Your task to perform on an android device: move an email to a new category in the gmail app Image 0: 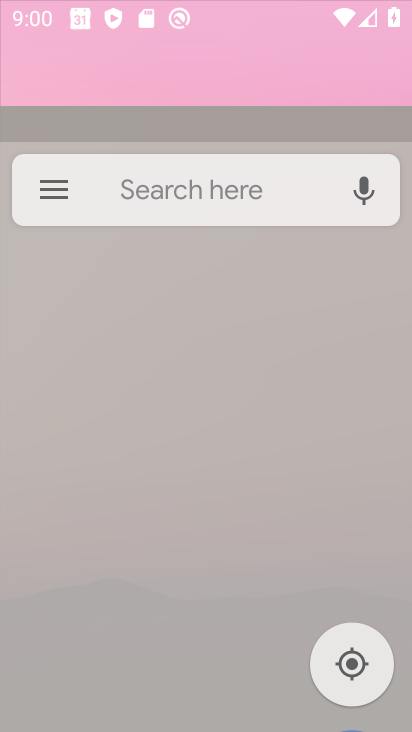
Step 0: drag from (288, 270) to (383, 6)
Your task to perform on an android device: move an email to a new category in the gmail app Image 1: 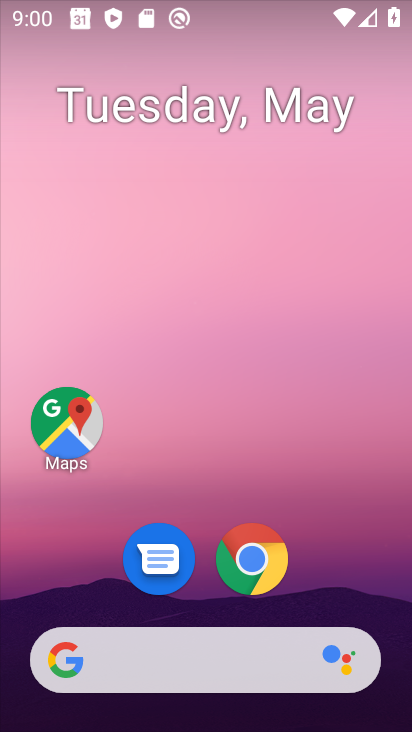
Step 1: drag from (378, 613) to (218, 30)
Your task to perform on an android device: move an email to a new category in the gmail app Image 2: 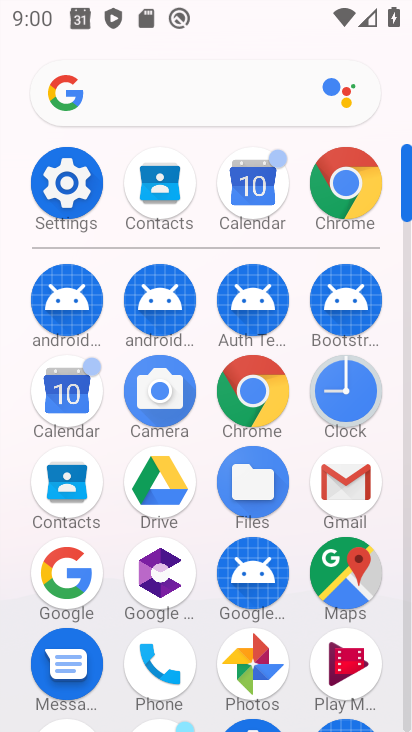
Step 2: click (335, 471)
Your task to perform on an android device: move an email to a new category in the gmail app Image 3: 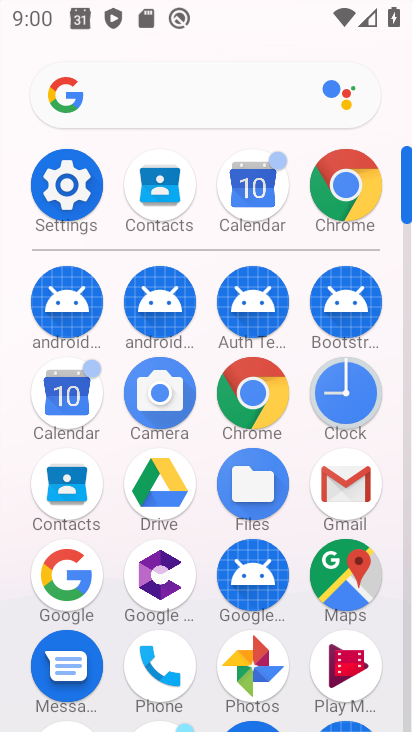
Step 3: click (343, 482)
Your task to perform on an android device: move an email to a new category in the gmail app Image 4: 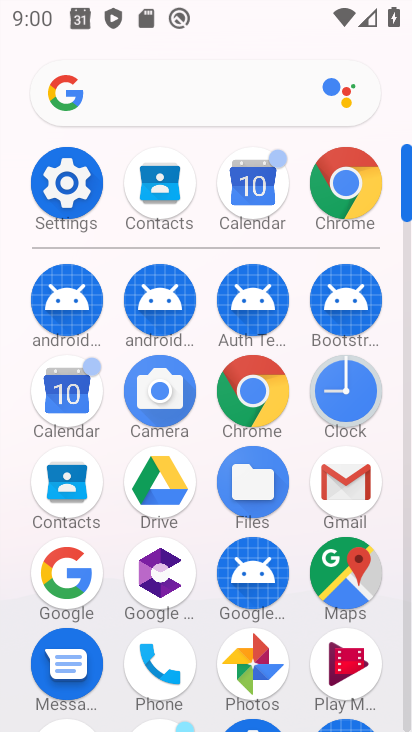
Step 4: click (345, 481)
Your task to perform on an android device: move an email to a new category in the gmail app Image 5: 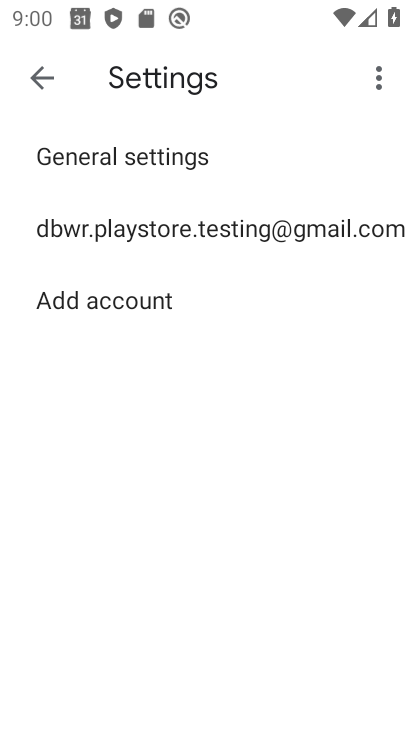
Step 5: click (343, 483)
Your task to perform on an android device: move an email to a new category in the gmail app Image 6: 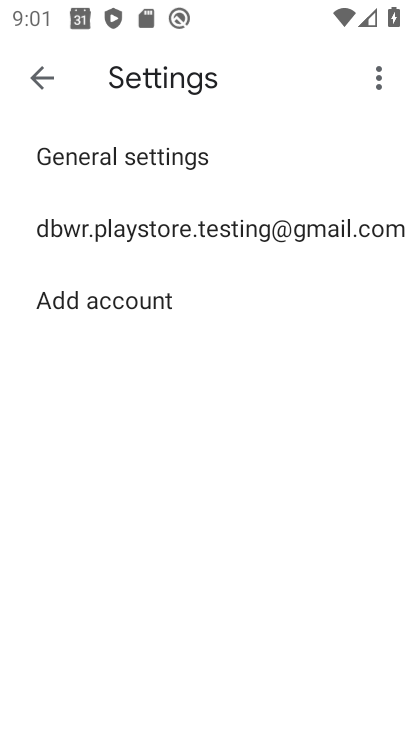
Step 6: click (125, 224)
Your task to perform on an android device: move an email to a new category in the gmail app Image 7: 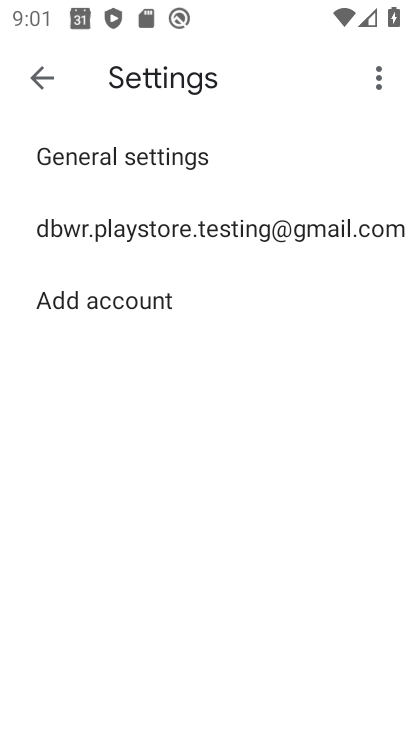
Step 7: click (127, 229)
Your task to perform on an android device: move an email to a new category in the gmail app Image 8: 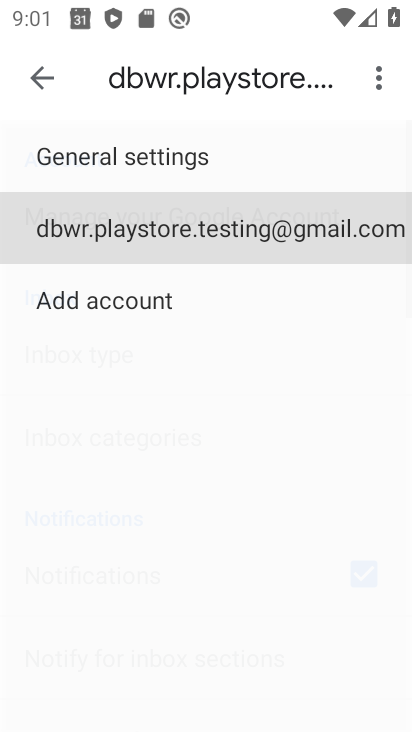
Step 8: click (127, 228)
Your task to perform on an android device: move an email to a new category in the gmail app Image 9: 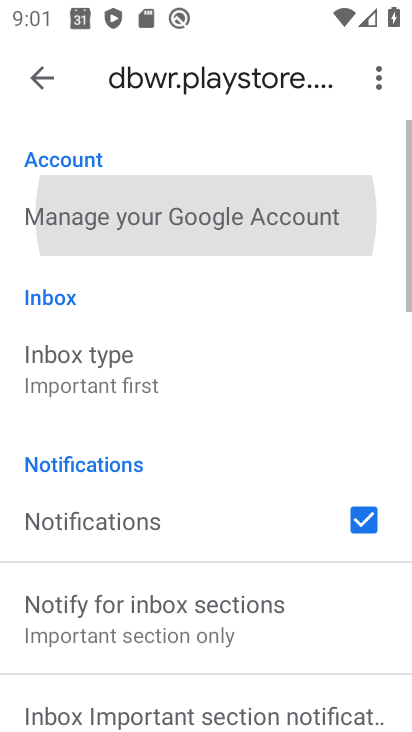
Step 9: click (127, 228)
Your task to perform on an android device: move an email to a new category in the gmail app Image 10: 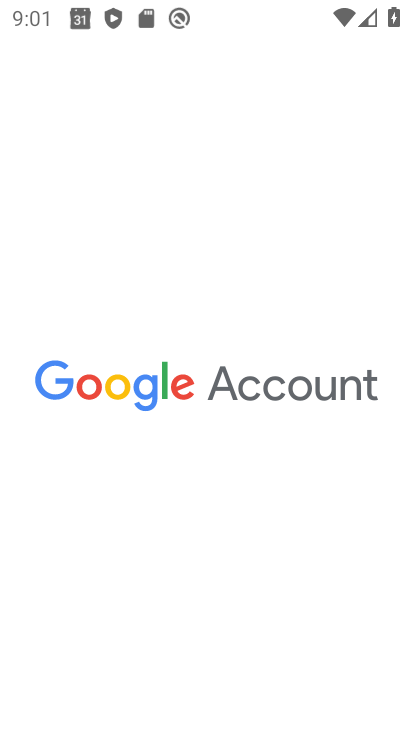
Step 10: drag from (169, 503) to (142, 289)
Your task to perform on an android device: move an email to a new category in the gmail app Image 11: 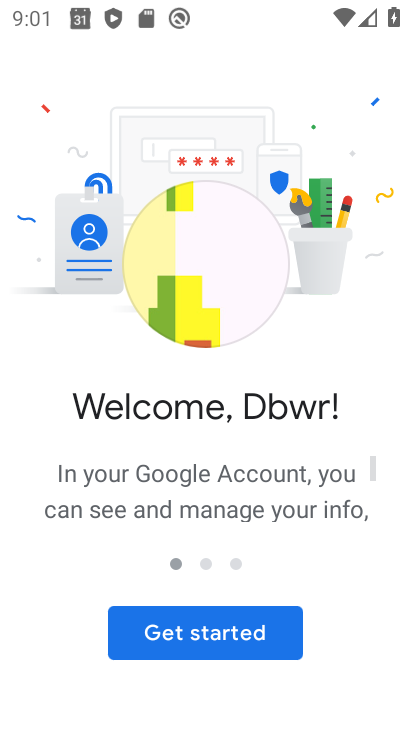
Step 11: click (232, 634)
Your task to perform on an android device: move an email to a new category in the gmail app Image 12: 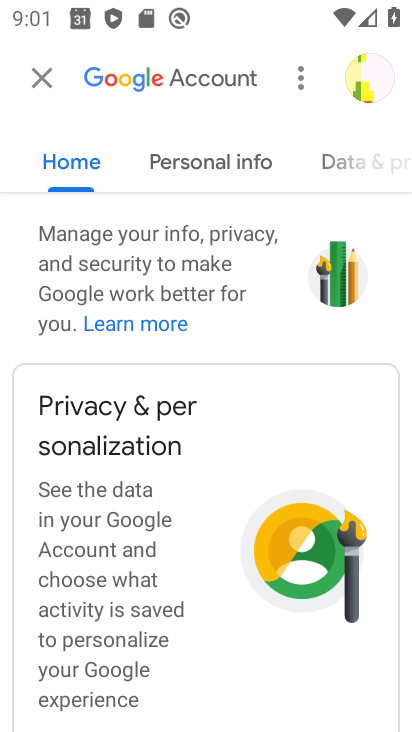
Step 12: click (42, 69)
Your task to perform on an android device: move an email to a new category in the gmail app Image 13: 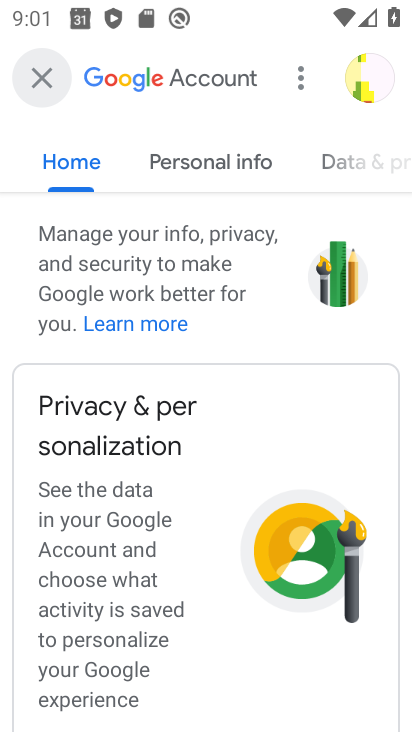
Step 13: click (42, 69)
Your task to perform on an android device: move an email to a new category in the gmail app Image 14: 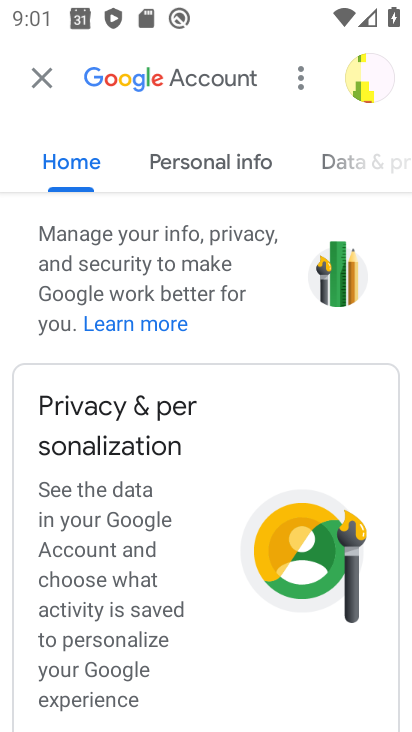
Step 14: click (42, 69)
Your task to perform on an android device: move an email to a new category in the gmail app Image 15: 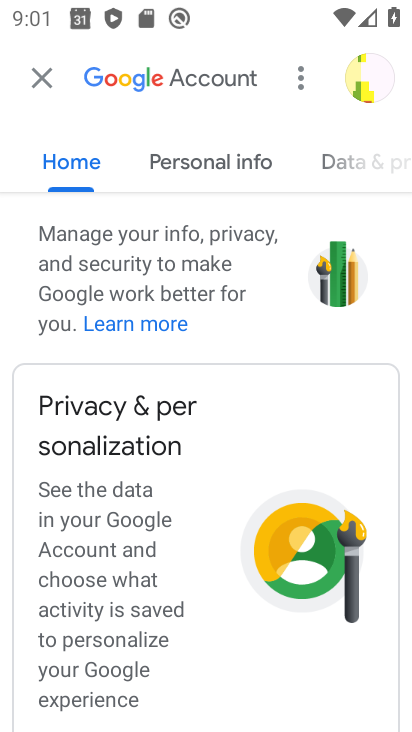
Step 15: click (41, 70)
Your task to perform on an android device: move an email to a new category in the gmail app Image 16: 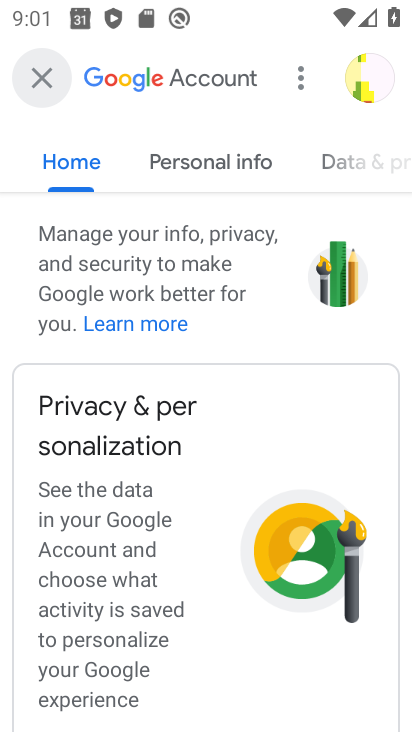
Step 16: click (43, 76)
Your task to perform on an android device: move an email to a new category in the gmail app Image 17: 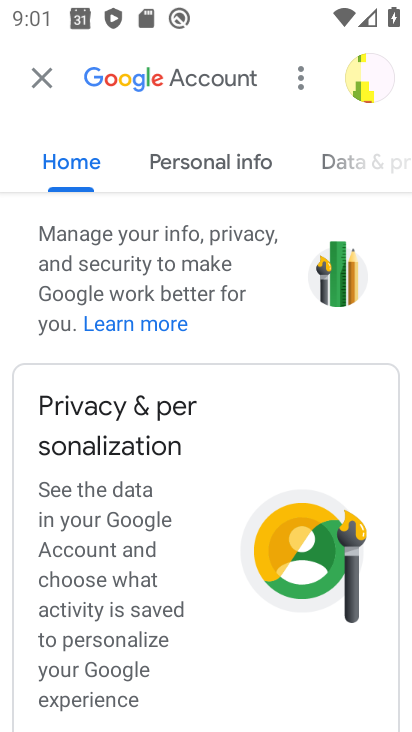
Step 17: click (44, 77)
Your task to perform on an android device: move an email to a new category in the gmail app Image 18: 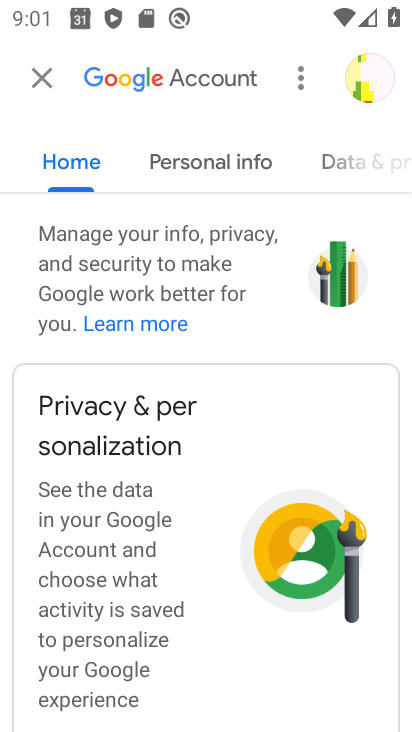
Step 18: click (44, 77)
Your task to perform on an android device: move an email to a new category in the gmail app Image 19: 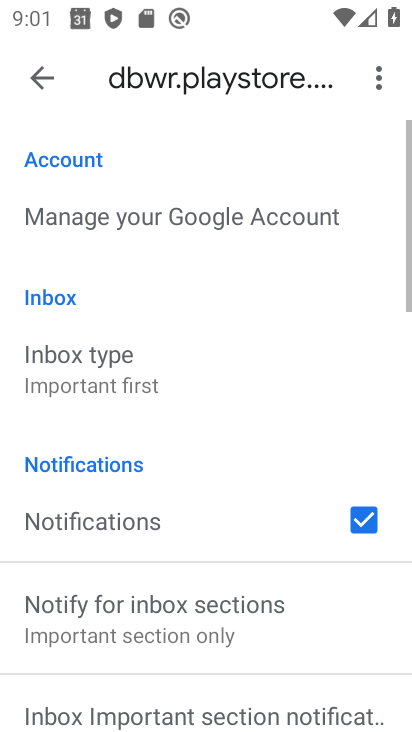
Step 19: press back button
Your task to perform on an android device: move an email to a new category in the gmail app Image 20: 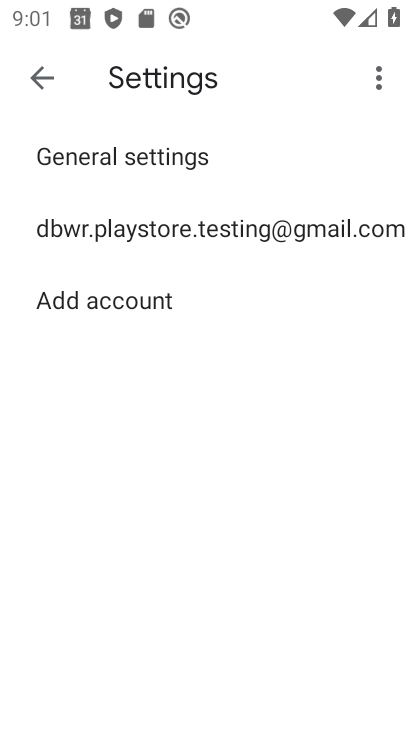
Step 20: press home button
Your task to perform on an android device: move an email to a new category in the gmail app Image 21: 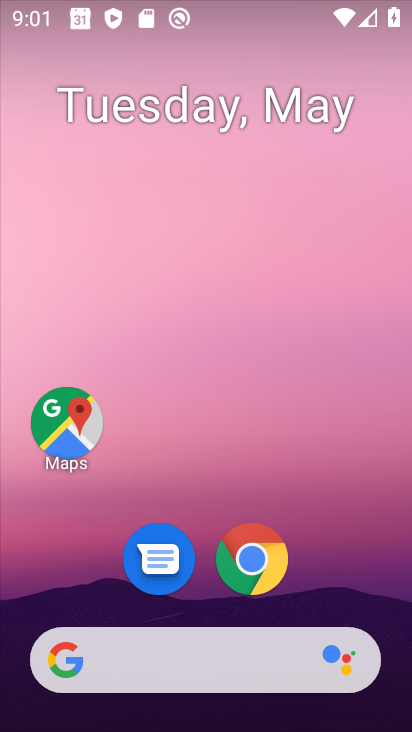
Step 21: drag from (391, 612) to (133, 55)
Your task to perform on an android device: move an email to a new category in the gmail app Image 22: 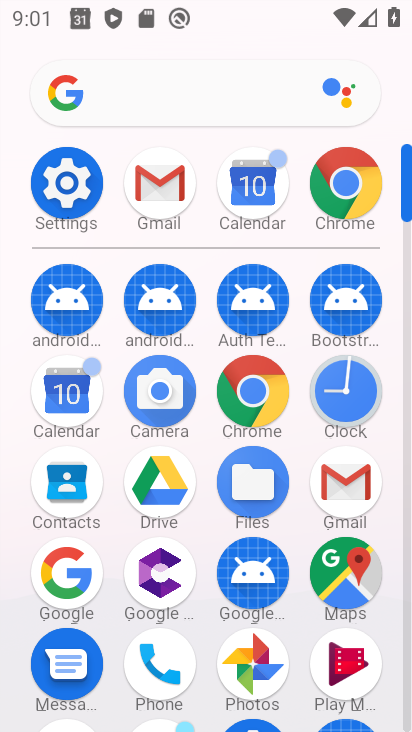
Step 22: click (345, 489)
Your task to perform on an android device: move an email to a new category in the gmail app Image 23: 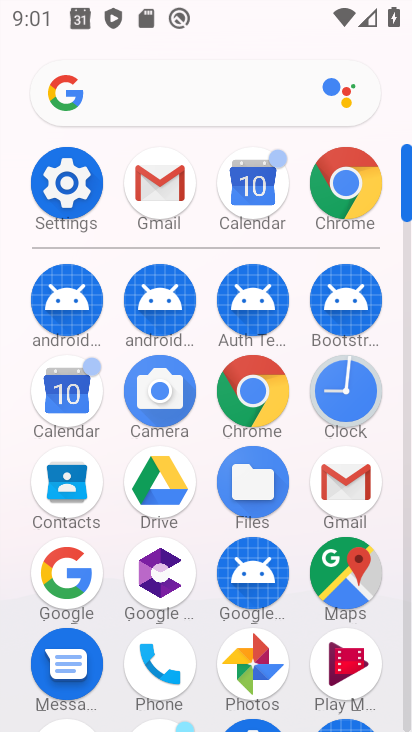
Step 23: click (345, 489)
Your task to perform on an android device: move an email to a new category in the gmail app Image 24: 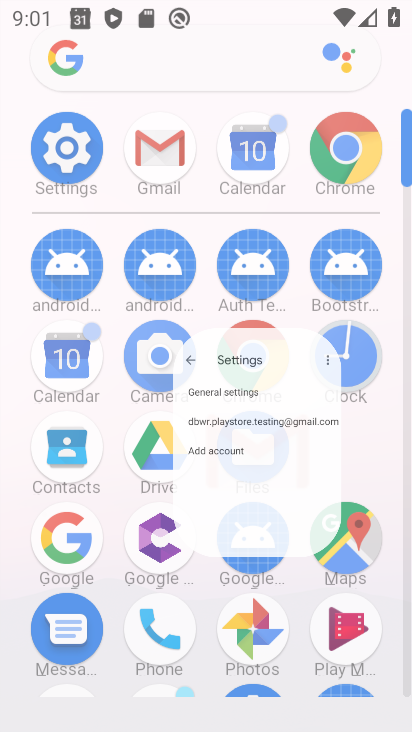
Step 24: click (345, 489)
Your task to perform on an android device: move an email to a new category in the gmail app Image 25: 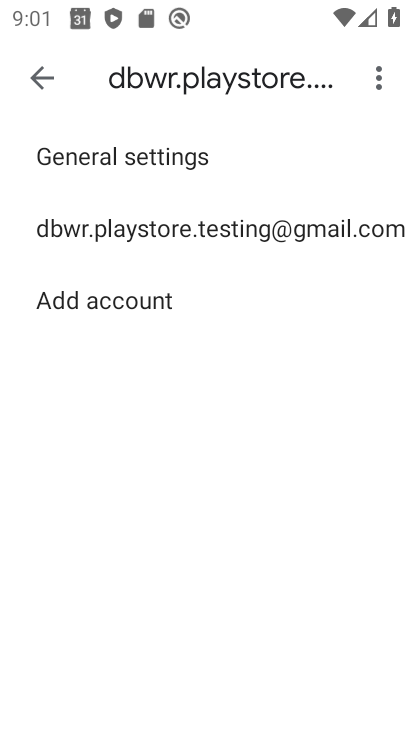
Step 25: click (145, 233)
Your task to perform on an android device: move an email to a new category in the gmail app Image 26: 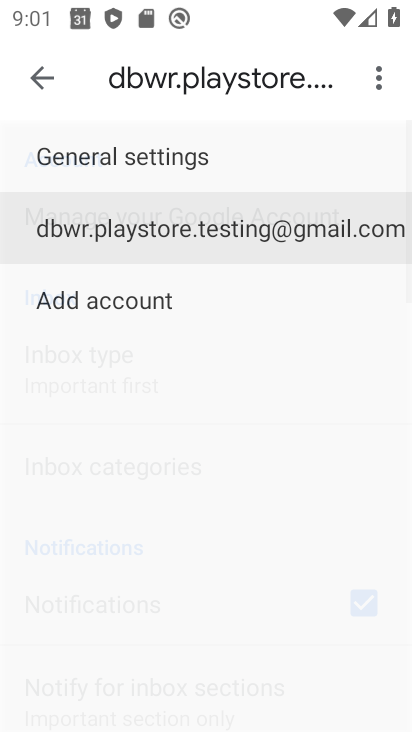
Step 26: click (148, 225)
Your task to perform on an android device: move an email to a new category in the gmail app Image 27: 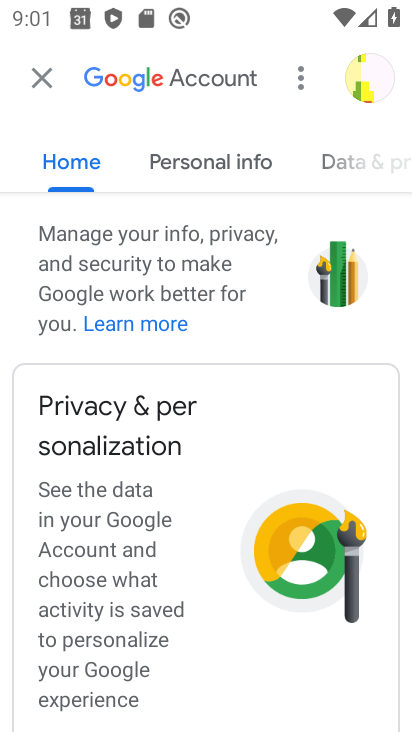
Step 27: click (38, 80)
Your task to perform on an android device: move an email to a new category in the gmail app Image 28: 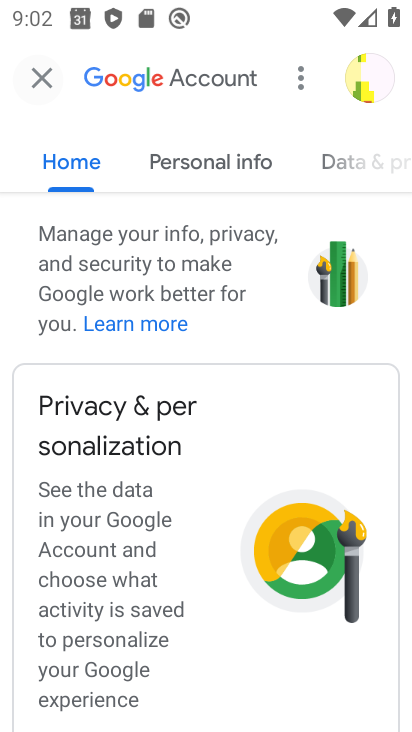
Step 28: click (38, 80)
Your task to perform on an android device: move an email to a new category in the gmail app Image 29: 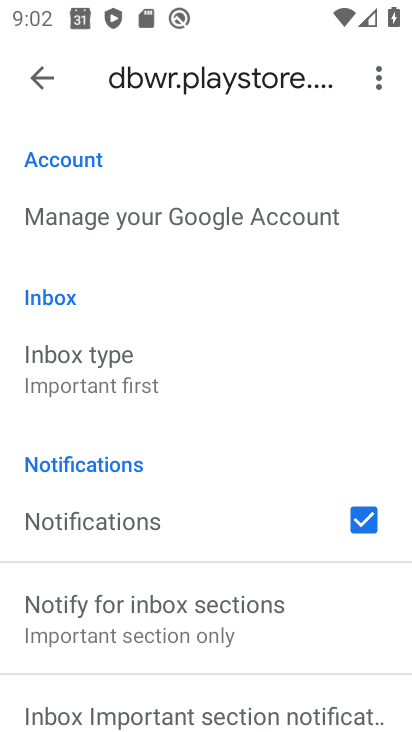
Step 29: drag from (112, 429) to (148, 56)
Your task to perform on an android device: move an email to a new category in the gmail app Image 30: 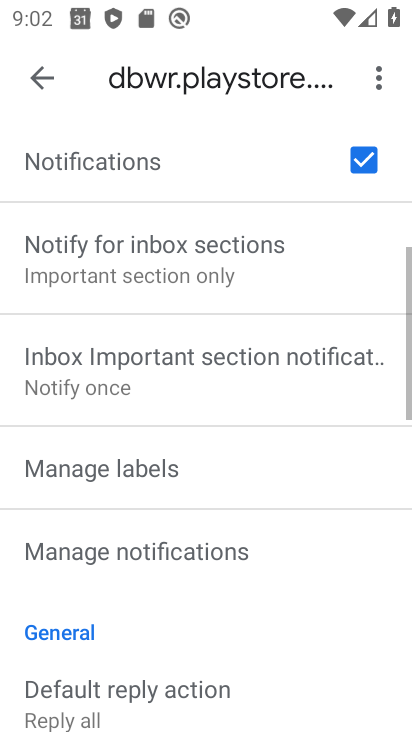
Step 30: drag from (161, 472) to (176, 197)
Your task to perform on an android device: move an email to a new category in the gmail app Image 31: 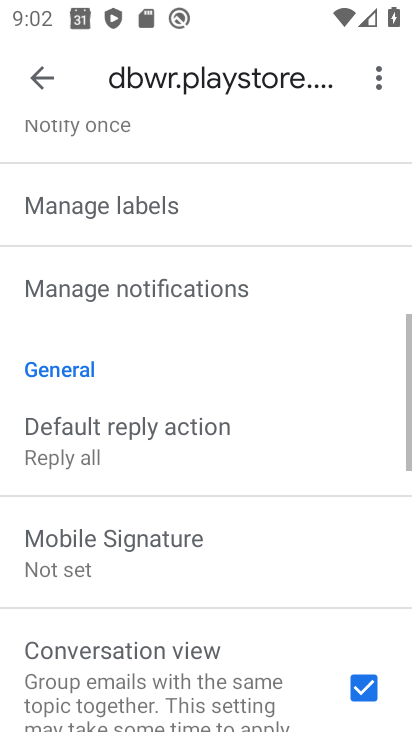
Step 31: drag from (141, 415) to (98, 86)
Your task to perform on an android device: move an email to a new category in the gmail app Image 32: 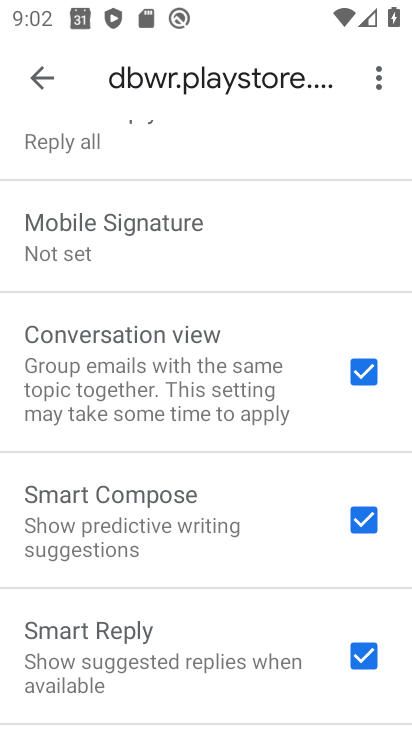
Step 32: drag from (124, 280) to (147, 616)
Your task to perform on an android device: move an email to a new category in the gmail app Image 33: 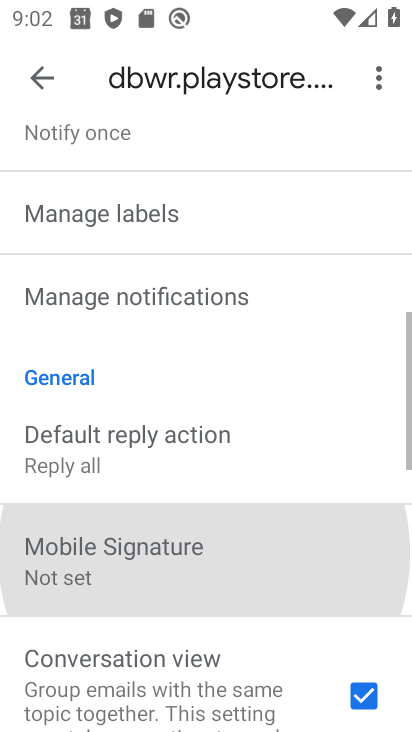
Step 33: drag from (133, 284) to (174, 691)
Your task to perform on an android device: move an email to a new category in the gmail app Image 34: 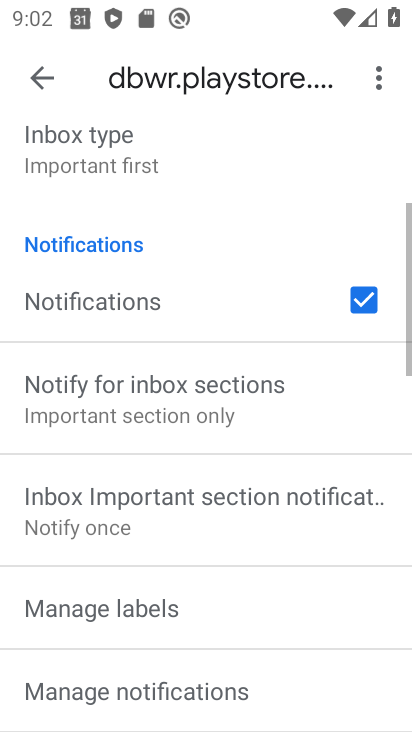
Step 34: drag from (168, 287) to (190, 652)
Your task to perform on an android device: move an email to a new category in the gmail app Image 35: 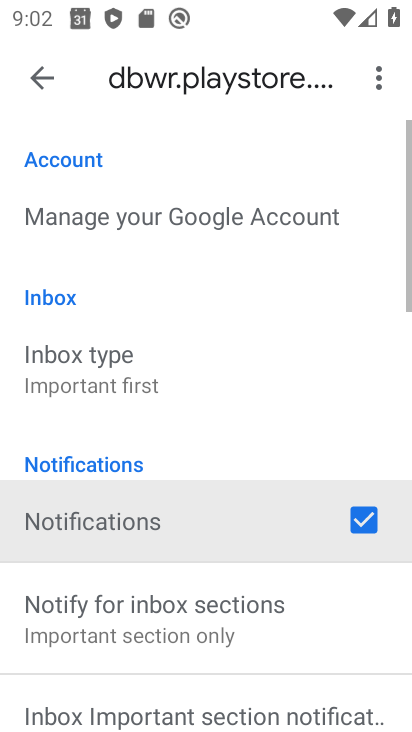
Step 35: drag from (69, 178) to (116, 650)
Your task to perform on an android device: move an email to a new category in the gmail app Image 36: 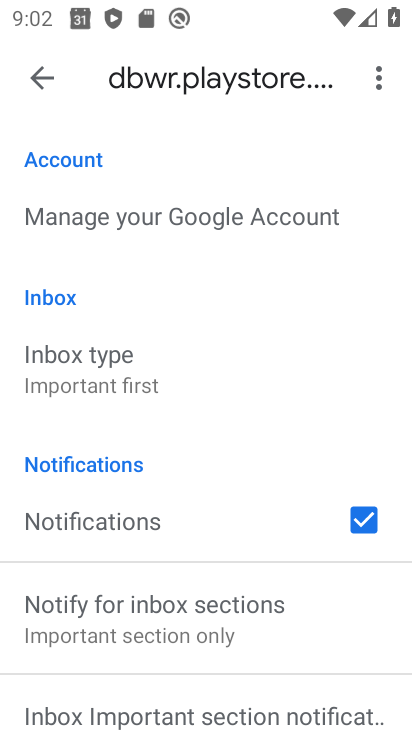
Step 36: click (42, 72)
Your task to perform on an android device: move an email to a new category in the gmail app Image 37: 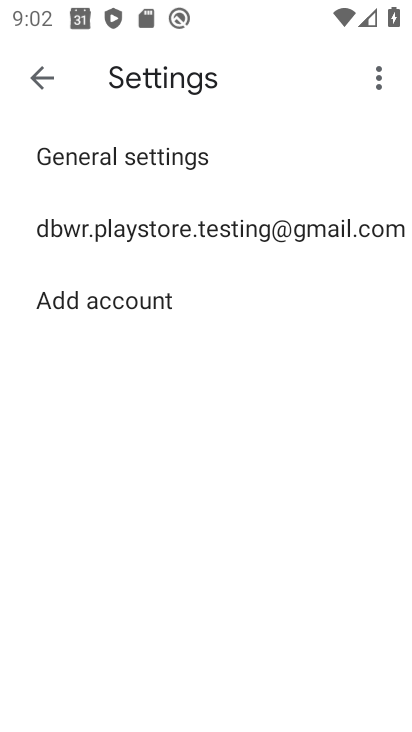
Step 37: press back button
Your task to perform on an android device: move an email to a new category in the gmail app Image 38: 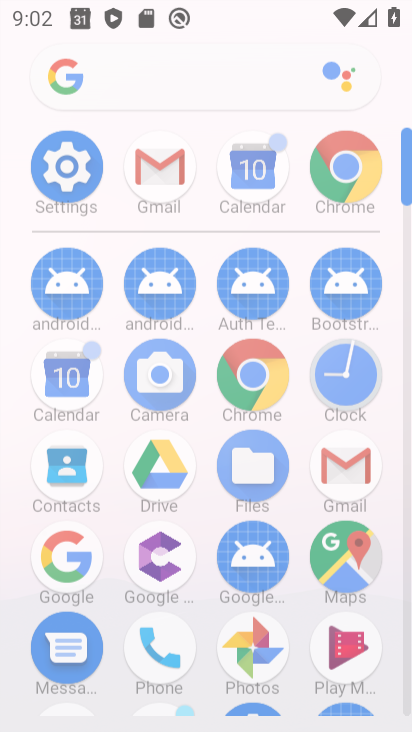
Step 38: press back button
Your task to perform on an android device: move an email to a new category in the gmail app Image 39: 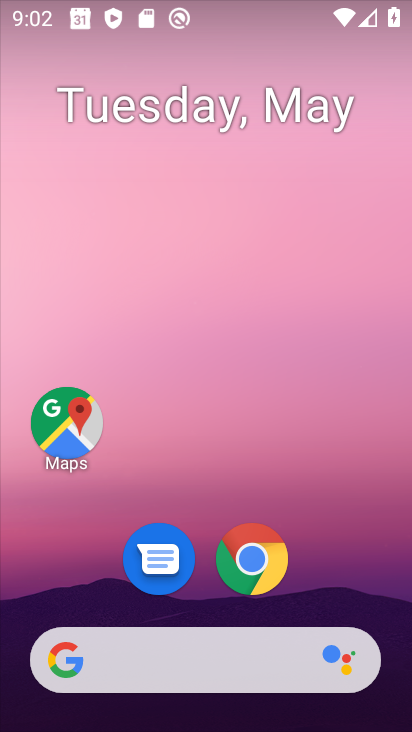
Step 39: drag from (360, 621) to (159, 1)
Your task to perform on an android device: move an email to a new category in the gmail app Image 40: 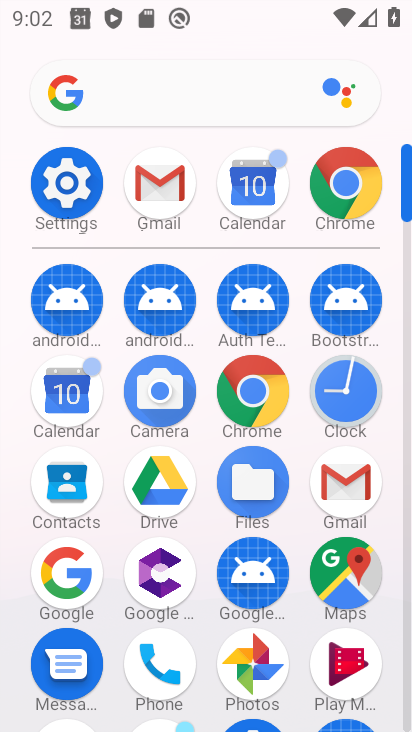
Step 40: click (341, 462)
Your task to perform on an android device: move an email to a new category in the gmail app Image 41: 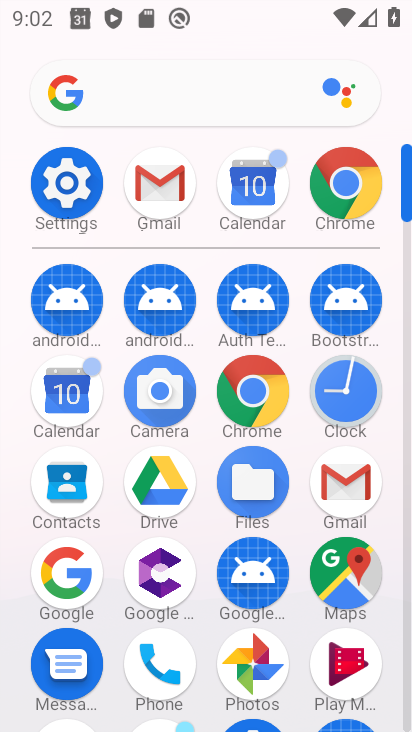
Step 41: click (349, 463)
Your task to perform on an android device: move an email to a new category in the gmail app Image 42: 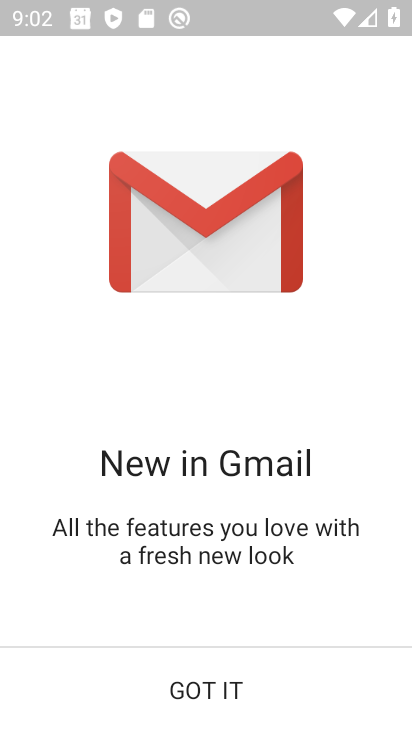
Step 42: click (224, 685)
Your task to perform on an android device: move an email to a new category in the gmail app Image 43: 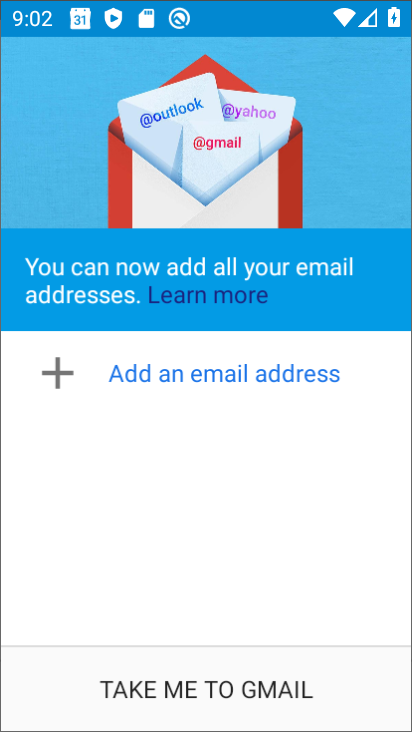
Step 43: click (224, 685)
Your task to perform on an android device: move an email to a new category in the gmail app Image 44: 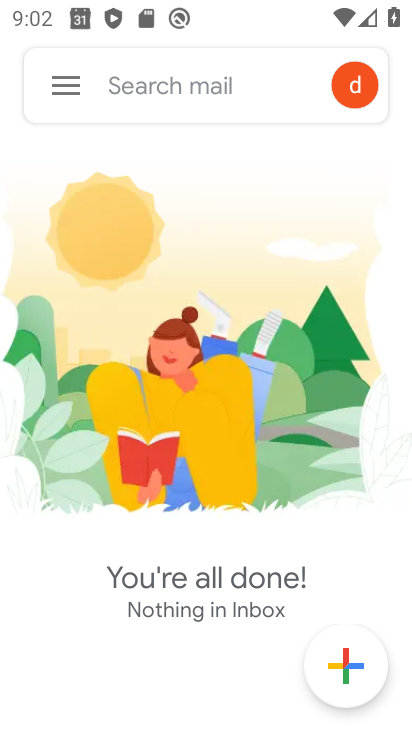
Step 44: click (65, 92)
Your task to perform on an android device: move an email to a new category in the gmail app Image 45: 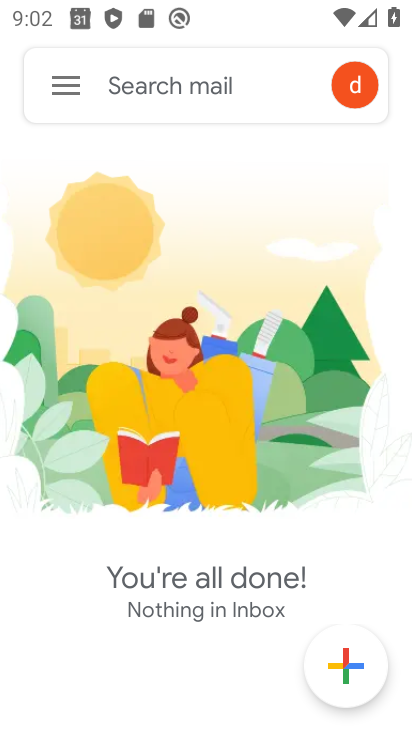
Step 45: click (65, 92)
Your task to perform on an android device: move an email to a new category in the gmail app Image 46: 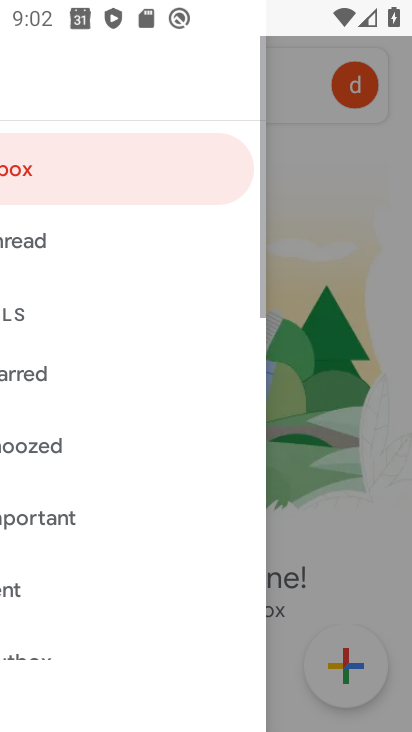
Step 46: click (65, 92)
Your task to perform on an android device: move an email to a new category in the gmail app Image 47: 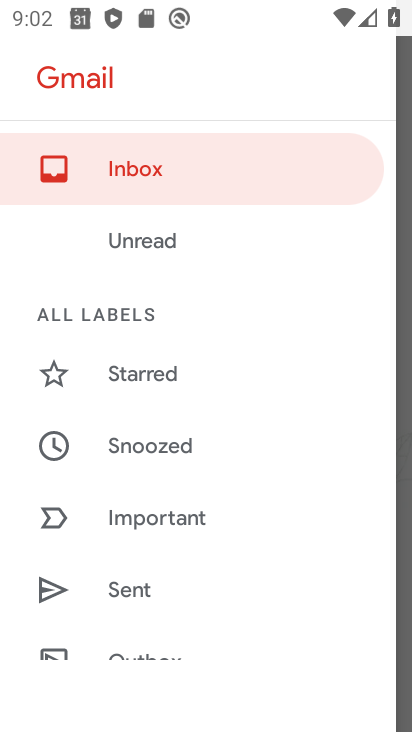
Step 47: drag from (214, 511) to (201, 173)
Your task to perform on an android device: move an email to a new category in the gmail app Image 48: 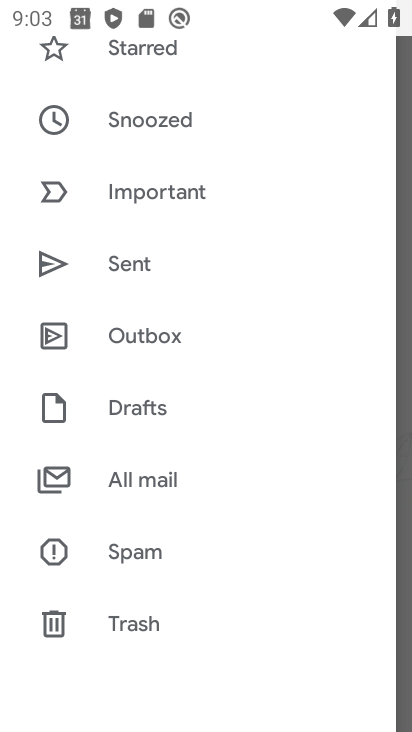
Step 48: click (159, 477)
Your task to perform on an android device: move an email to a new category in the gmail app Image 49: 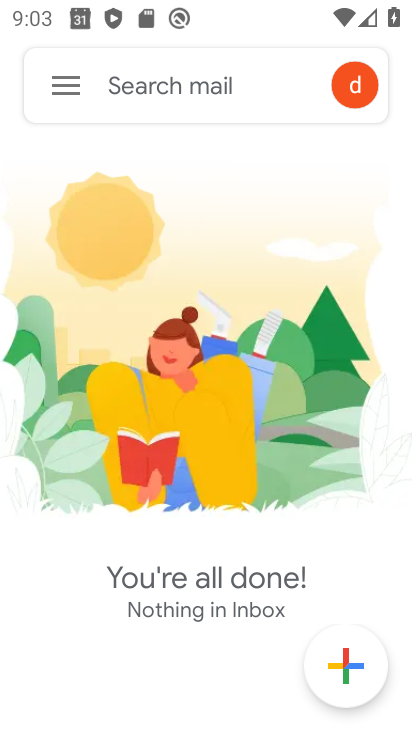
Step 49: click (159, 477)
Your task to perform on an android device: move an email to a new category in the gmail app Image 50: 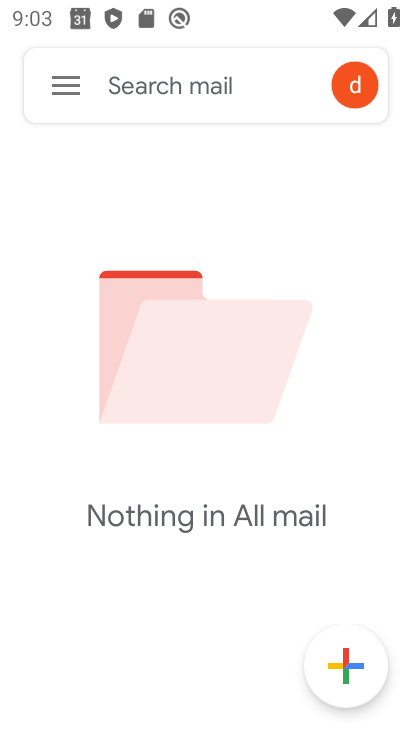
Step 50: task complete